Your task to perform on an android device: Open Google Chrome and open the bookmarks view Image 0: 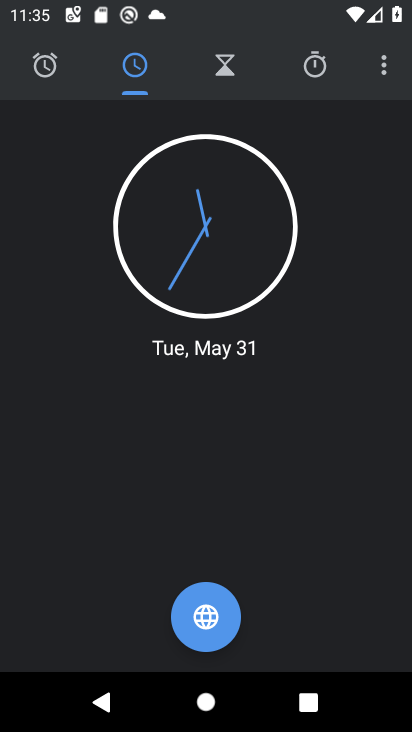
Step 0: press home button
Your task to perform on an android device: Open Google Chrome and open the bookmarks view Image 1: 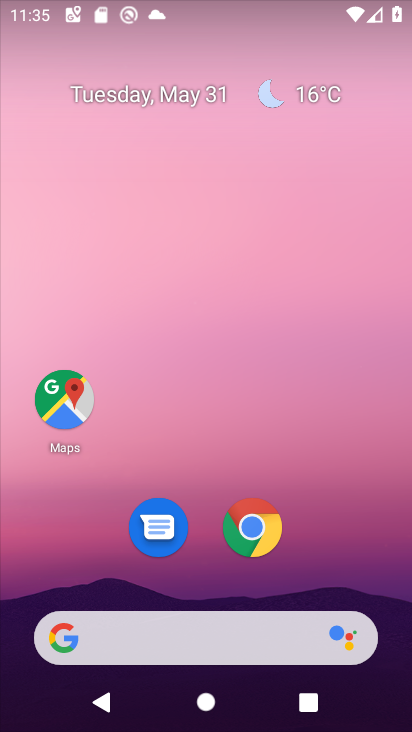
Step 1: click (255, 526)
Your task to perform on an android device: Open Google Chrome and open the bookmarks view Image 2: 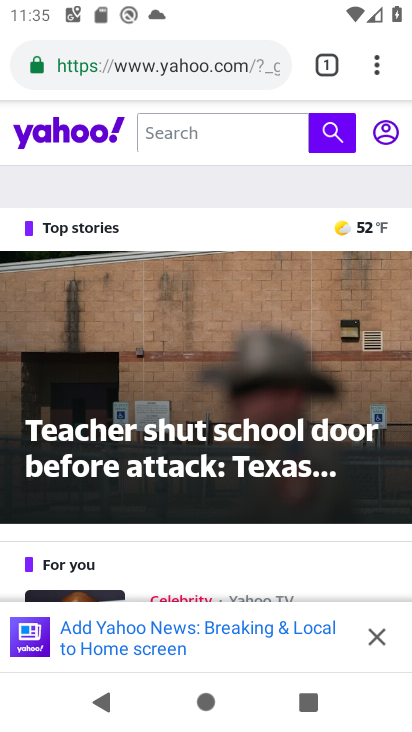
Step 2: click (379, 67)
Your task to perform on an android device: Open Google Chrome and open the bookmarks view Image 3: 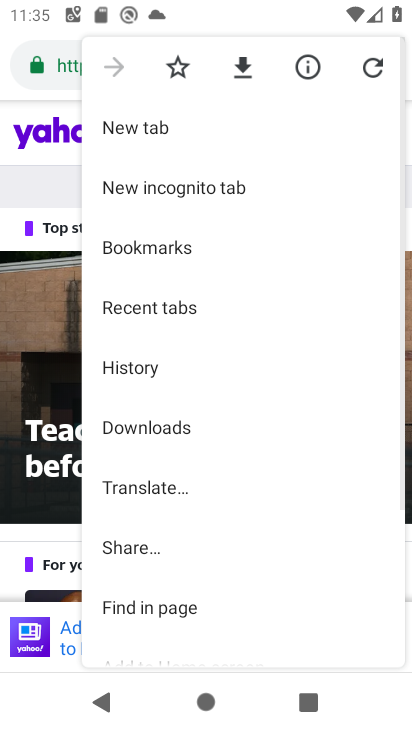
Step 3: click (139, 252)
Your task to perform on an android device: Open Google Chrome and open the bookmarks view Image 4: 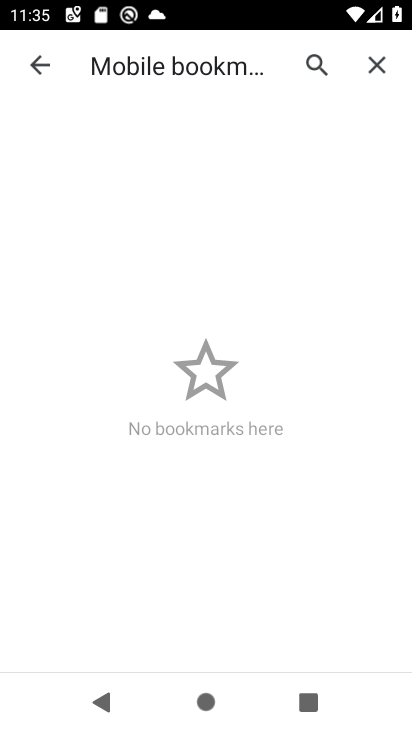
Step 4: task complete